Your task to perform on an android device: Open settings Image 0: 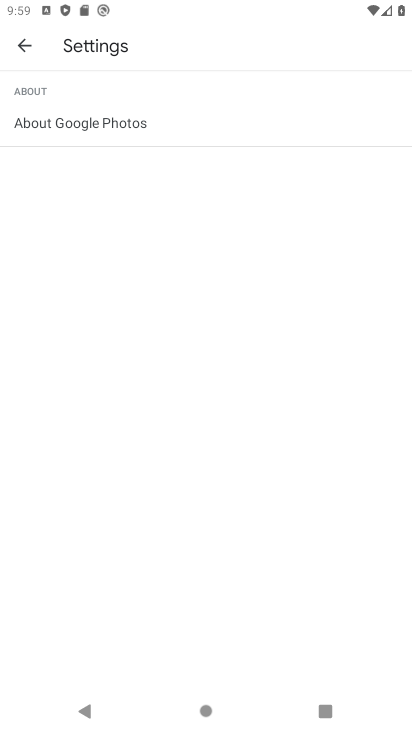
Step 0: press home button
Your task to perform on an android device: Open settings Image 1: 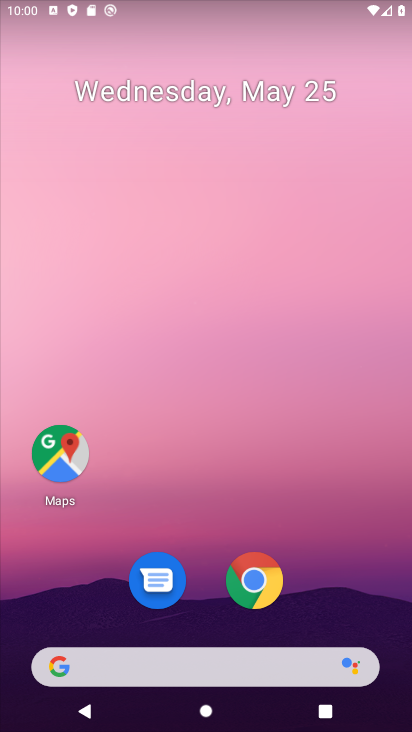
Step 1: drag from (32, 485) to (206, 78)
Your task to perform on an android device: Open settings Image 2: 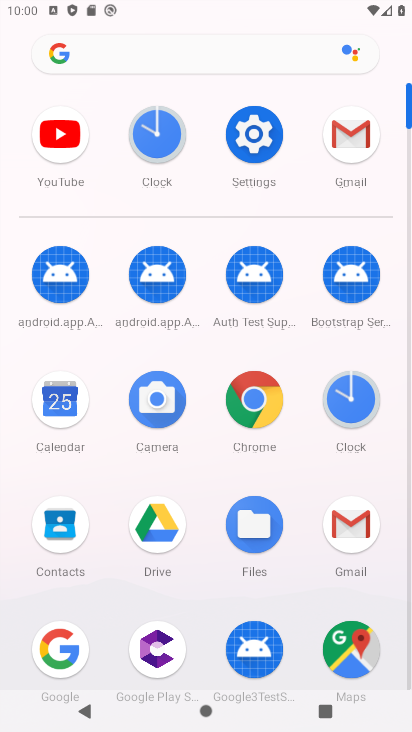
Step 2: click (248, 143)
Your task to perform on an android device: Open settings Image 3: 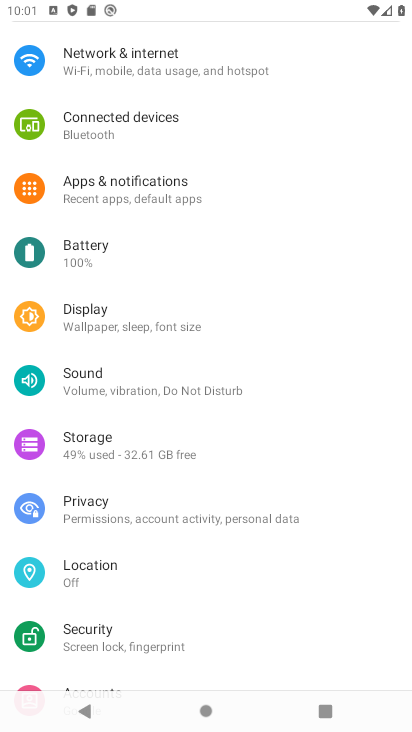
Step 3: task complete